Your task to perform on an android device: change alarm snooze length Image 0: 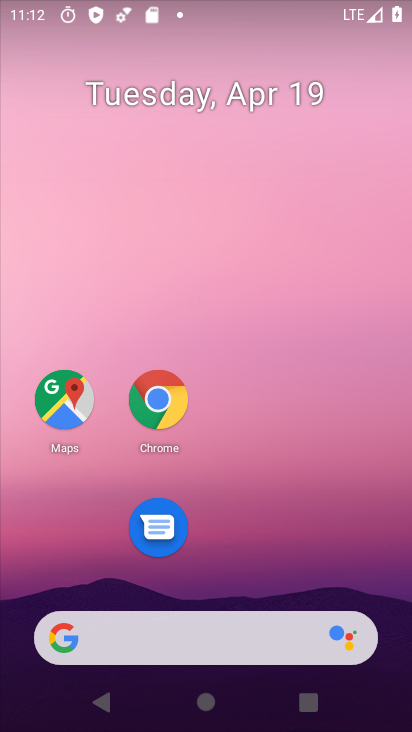
Step 0: drag from (227, 661) to (203, 15)
Your task to perform on an android device: change alarm snooze length Image 1: 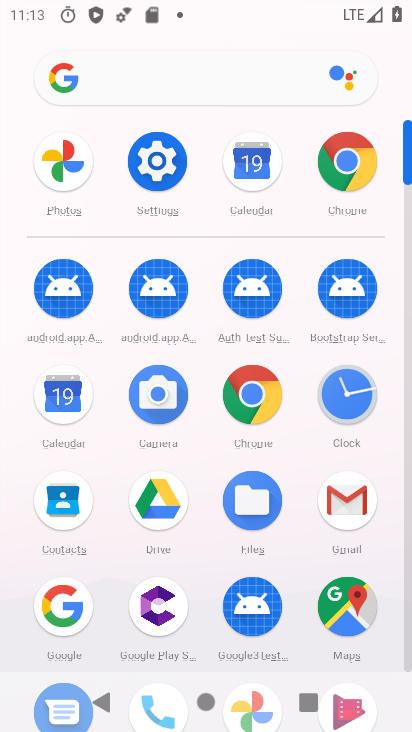
Step 1: click (345, 389)
Your task to perform on an android device: change alarm snooze length Image 2: 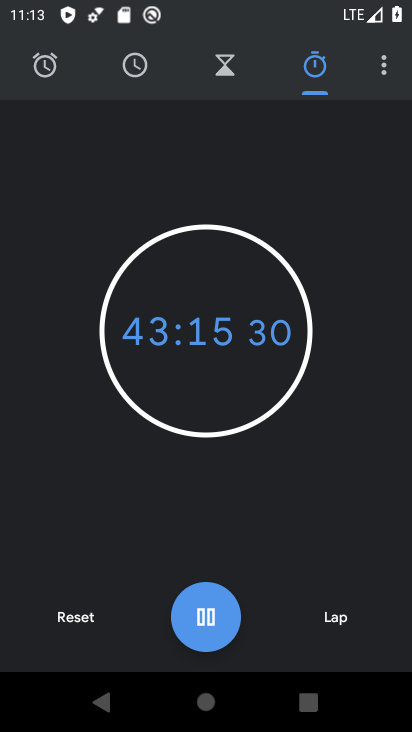
Step 2: click (376, 74)
Your task to perform on an android device: change alarm snooze length Image 3: 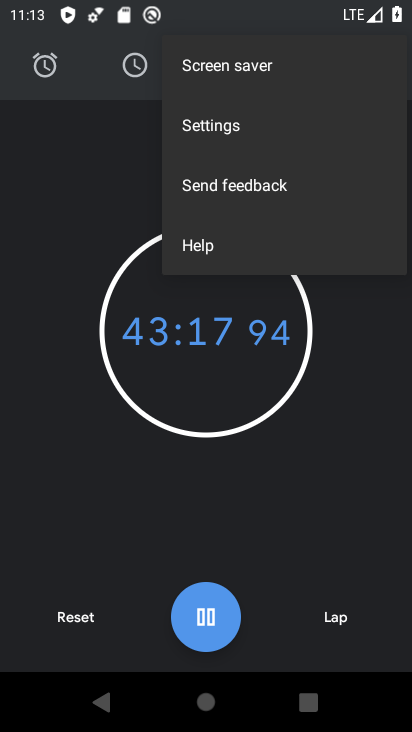
Step 3: click (244, 135)
Your task to perform on an android device: change alarm snooze length Image 4: 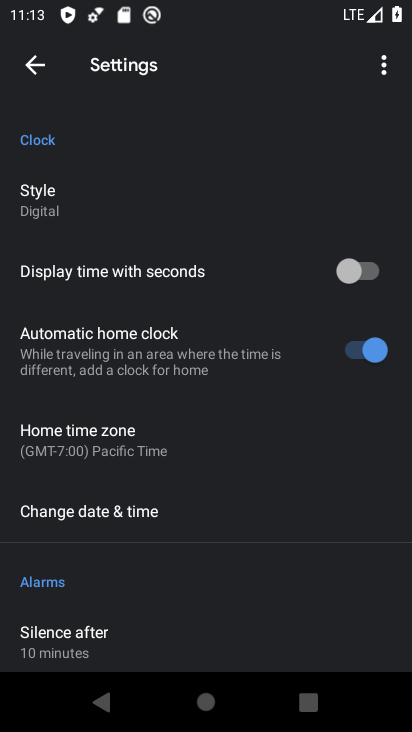
Step 4: drag from (155, 535) to (136, 309)
Your task to perform on an android device: change alarm snooze length Image 5: 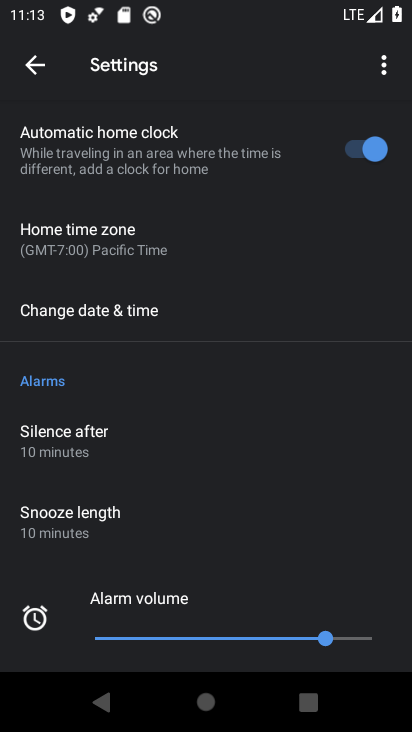
Step 5: click (100, 509)
Your task to perform on an android device: change alarm snooze length Image 6: 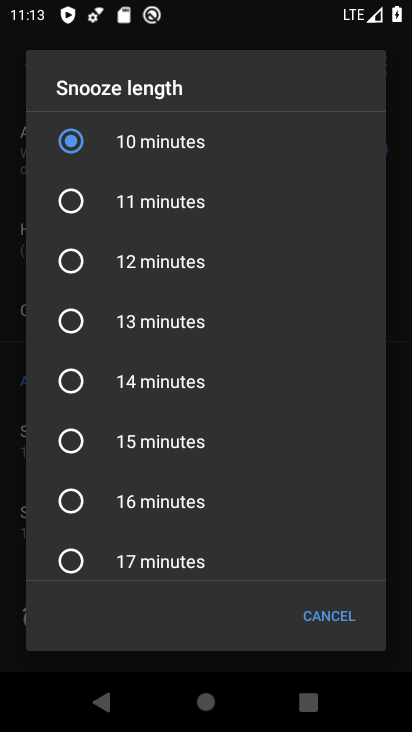
Step 6: click (136, 276)
Your task to perform on an android device: change alarm snooze length Image 7: 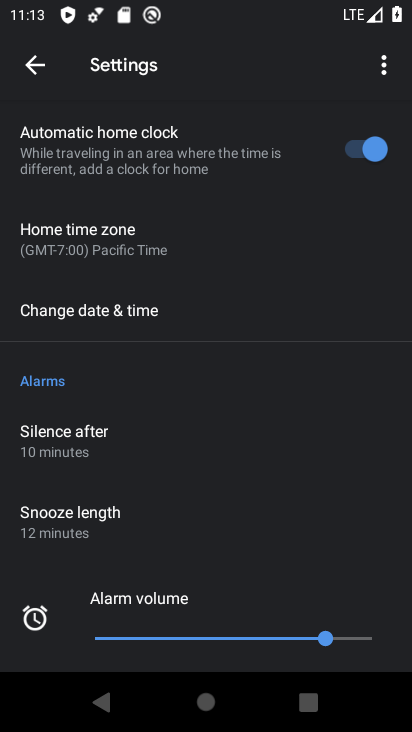
Step 7: task complete